Your task to perform on an android device: delete location history Image 0: 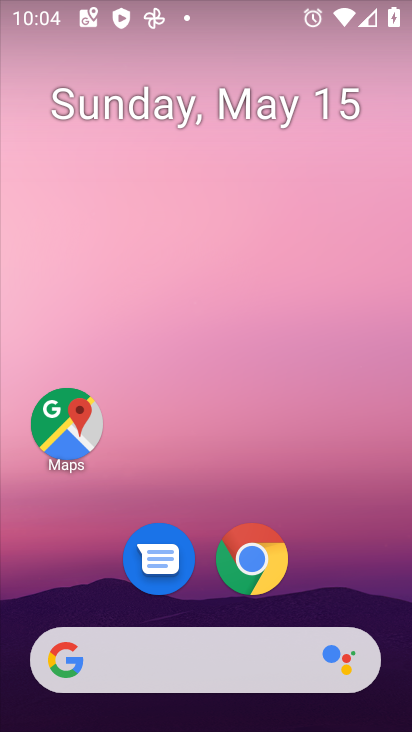
Step 0: drag from (349, 572) to (272, 49)
Your task to perform on an android device: delete location history Image 1: 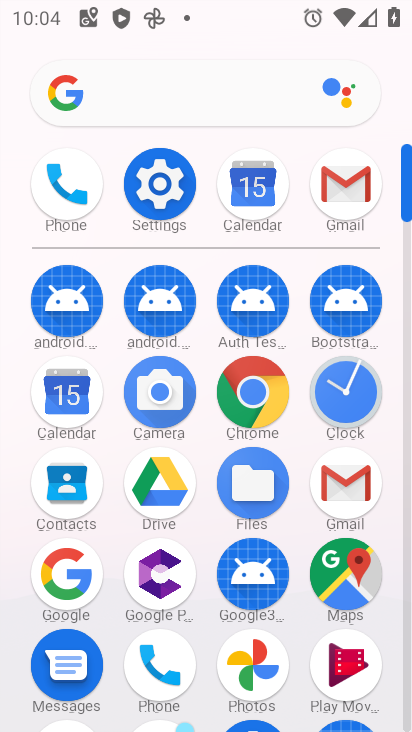
Step 1: click (154, 172)
Your task to perform on an android device: delete location history Image 2: 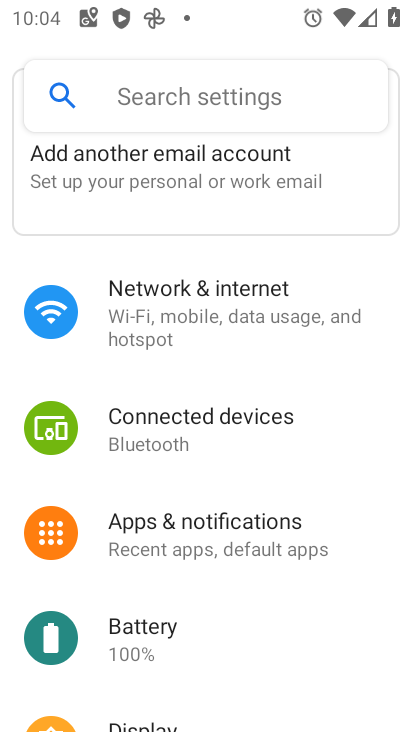
Step 2: drag from (252, 649) to (312, 176)
Your task to perform on an android device: delete location history Image 3: 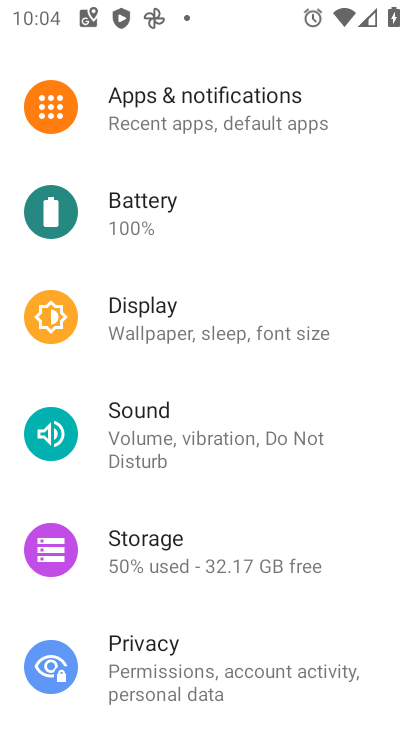
Step 3: drag from (279, 633) to (291, 253)
Your task to perform on an android device: delete location history Image 4: 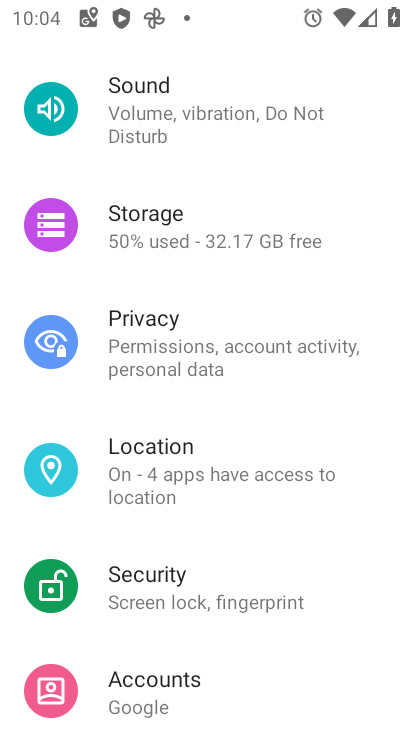
Step 4: click (257, 468)
Your task to perform on an android device: delete location history Image 5: 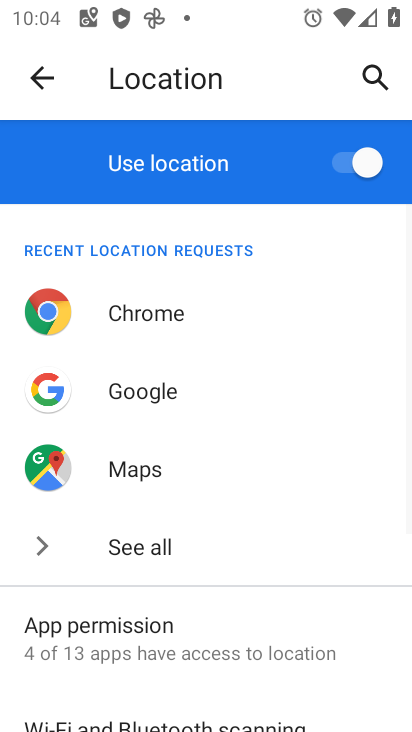
Step 5: drag from (197, 623) to (241, 270)
Your task to perform on an android device: delete location history Image 6: 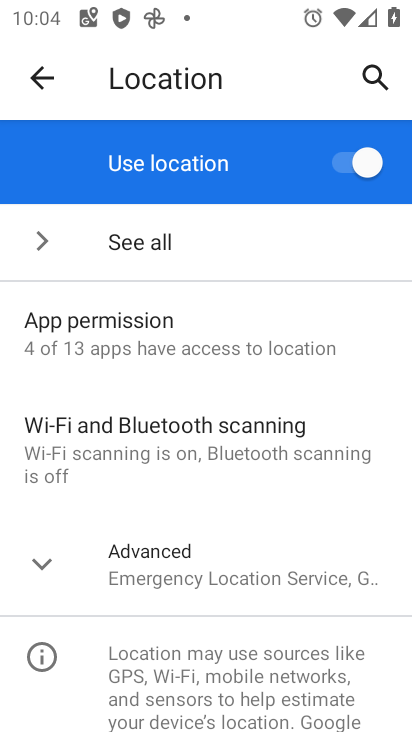
Step 6: click (217, 555)
Your task to perform on an android device: delete location history Image 7: 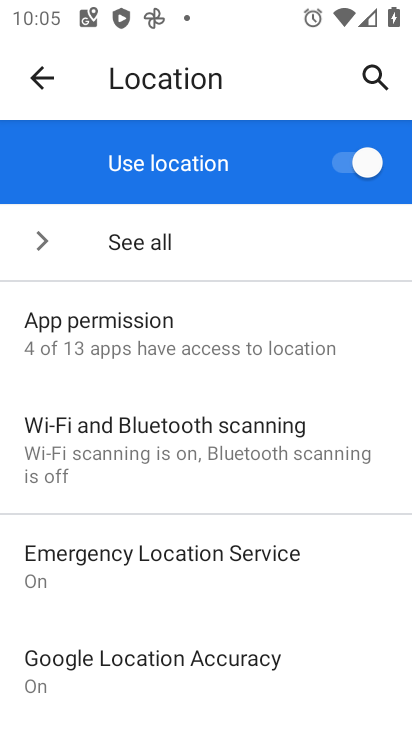
Step 7: drag from (244, 637) to (271, 452)
Your task to perform on an android device: delete location history Image 8: 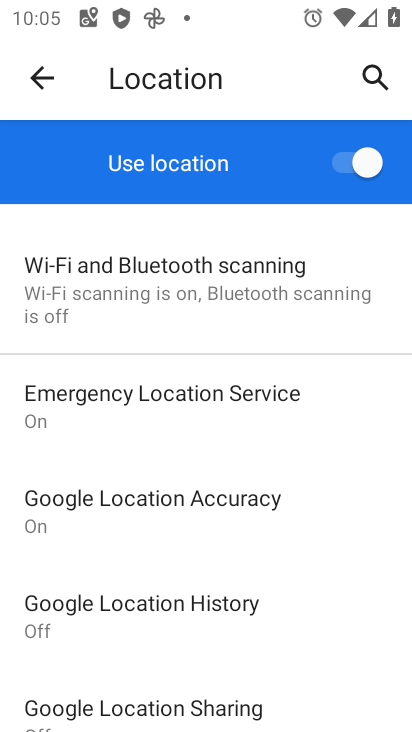
Step 8: click (251, 599)
Your task to perform on an android device: delete location history Image 9: 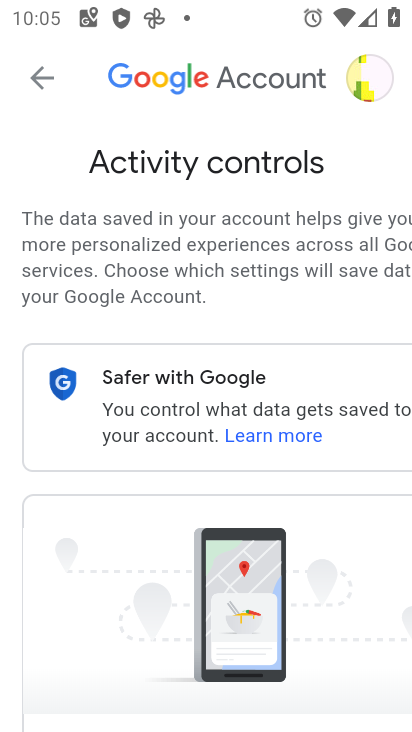
Step 9: drag from (220, 582) to (253, 102)
Your task to perform on an android device: delete location history Image 10: 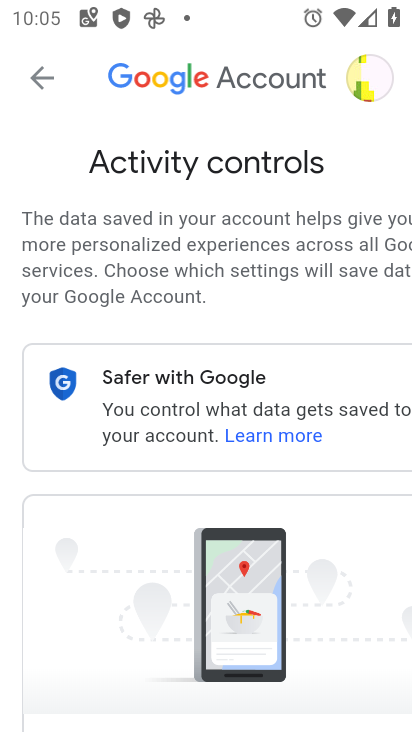
Step 10: drag from (188, 664) to (208, 289)
Your task to perform on an android device: delete location history Image 11: 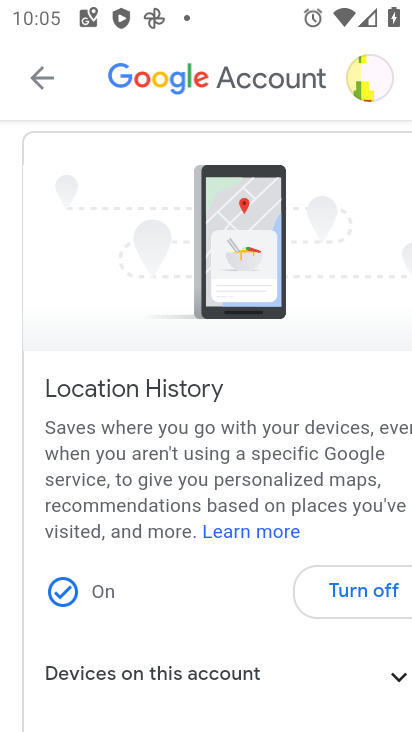
Step 11: click (198, 664)
Your task to perform on an android device: delete location history Image 12: 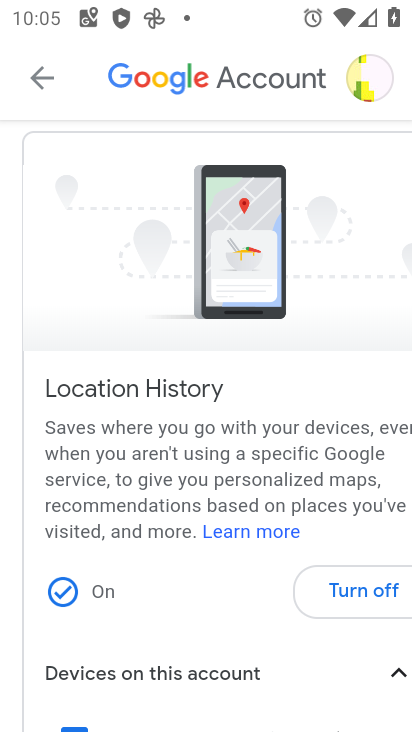
Step 12: drag from (198, 595) to (206, 379)
Your task to perform on an android device: delete location history Image 13: 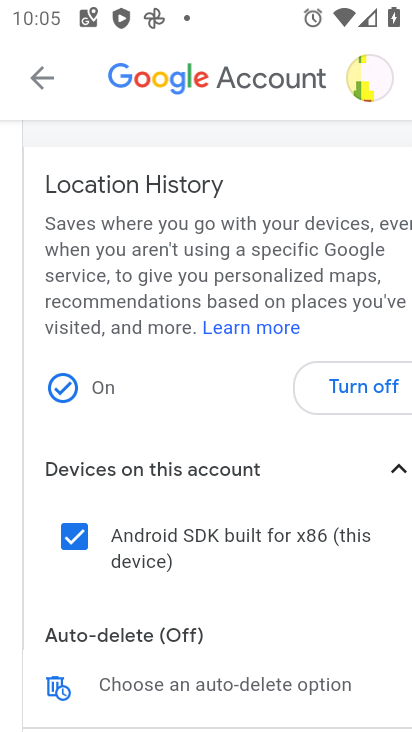
Step 13: click (225, 684)
Your task to perform on an android device: delete location history Image 14: 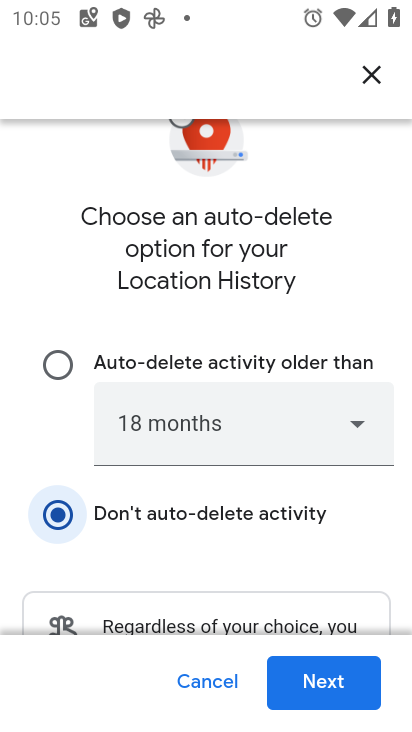
Step 14: click (327, 691)
Your task to perform on an android device: delete location history Image 15: 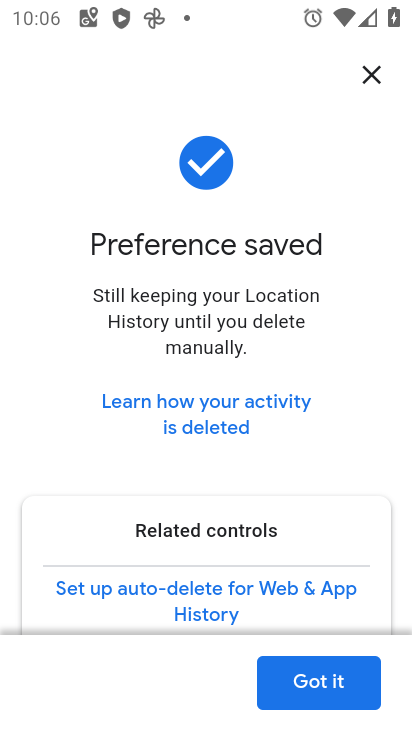
Step 15: click (327, 691)
Your task to perform on an android device: delete location history Image 16: 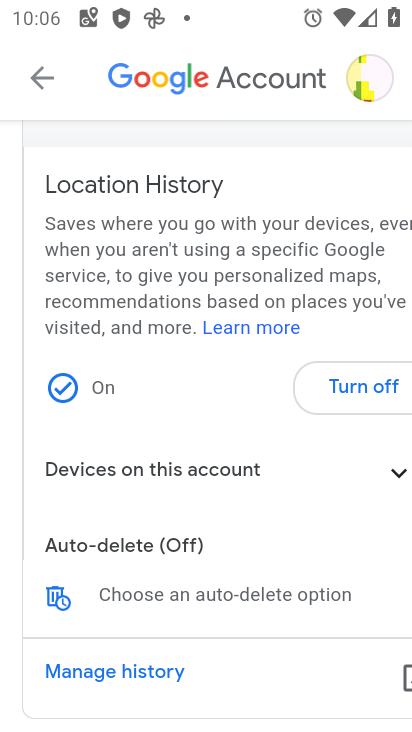
Step 16: task complete